Your task to perform on an android device: change your default location settings in chrome Image 0: 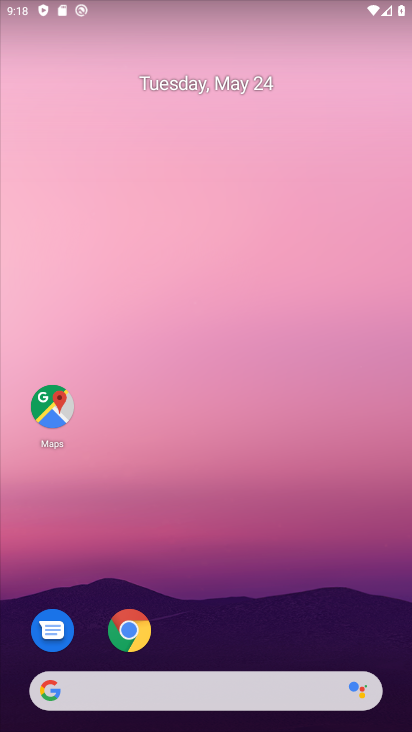
Step 0: click (127, 633)
Your task to perform on an android device: change your default location settings in chrome Image 1: 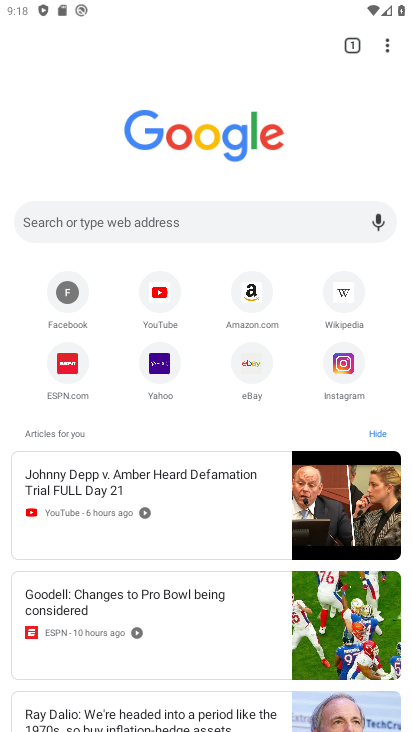
Step 1: click (388, 44)
Your task to perform on an android device: change your default location settings in chrome Image 2: 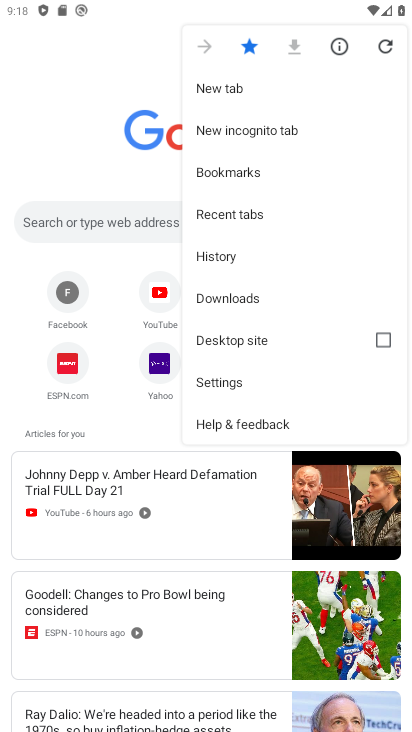
Step 2: click (250, 382)
Your task to perform on an android device: change your default location settings in chrome Image 3: 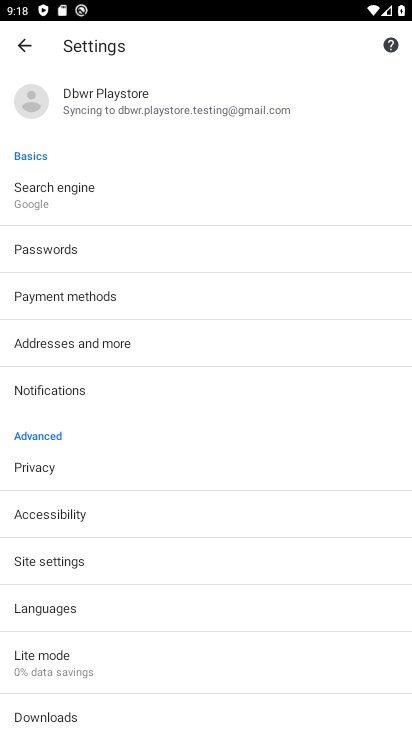
Step 3: click (94, 562)
Your task to perform on an android device: change your default location settings in chrome Image 4: 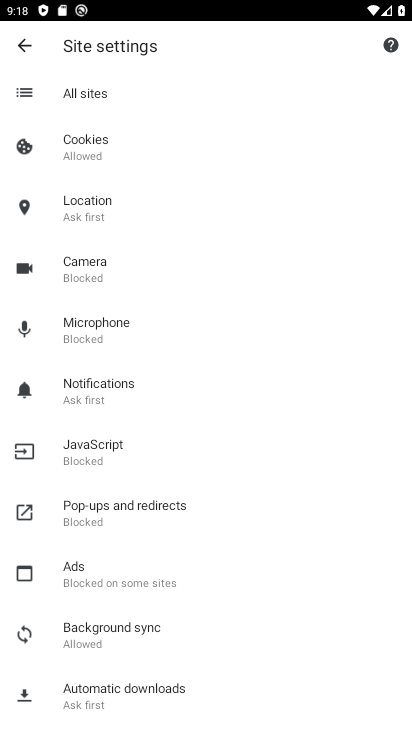
Step 4: click (127, 207)
Your task to perform on an android device: change your default location settings in chrome Image 5: 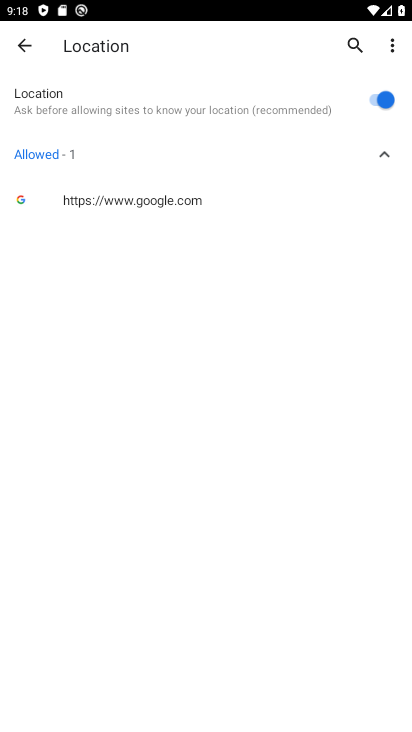
Step 5: click (379, 93)
Your task to perform on an android device: change your default location settings in chrome Image 6: 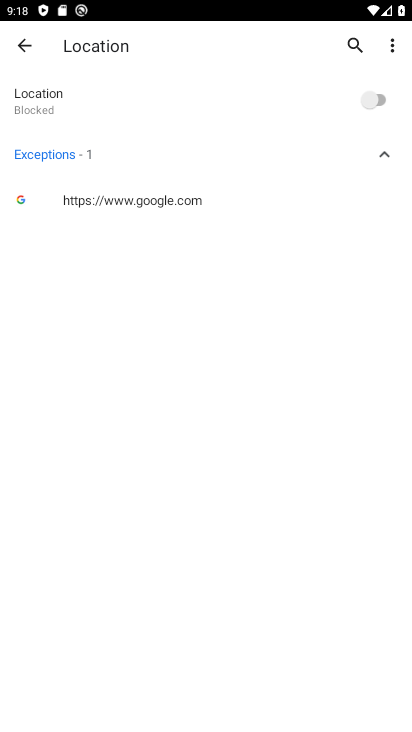
Step 6: task complete